Your task to perform on an android device: check storage Image 0: 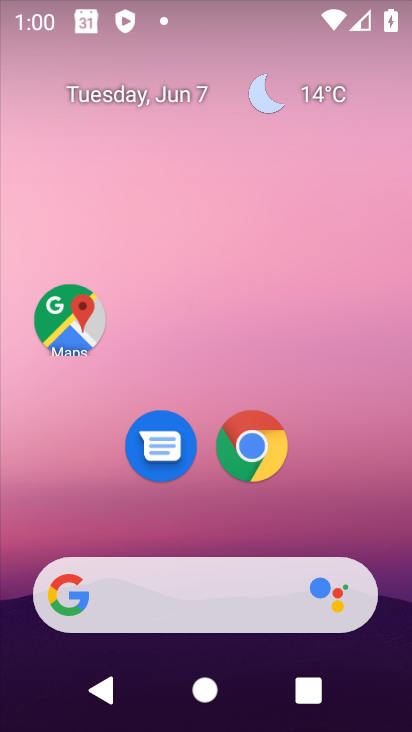
Step 0: drag from (377, 547) to (227, 27)
Your task to perform on an android device: check storage Image 1: 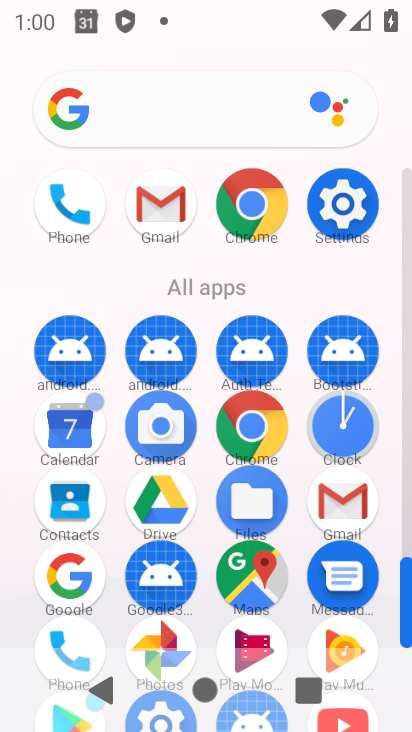
Step 1: drag from (12, 665) to (22, 303)
Your task to perform on an android device: check storage Image 2: 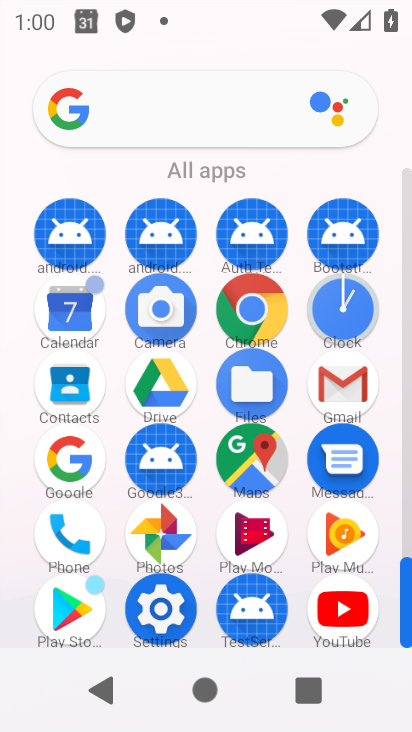
Step 2: click (161, 602)
Your task to perform on an android device: check storage Image 3: 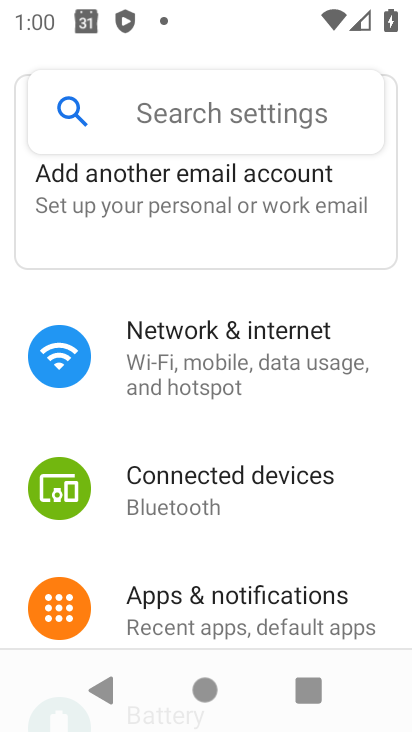
Step 3: drag from (275, 546) to (293, 210)
Your task to perform on an android device: check storage Image 4: 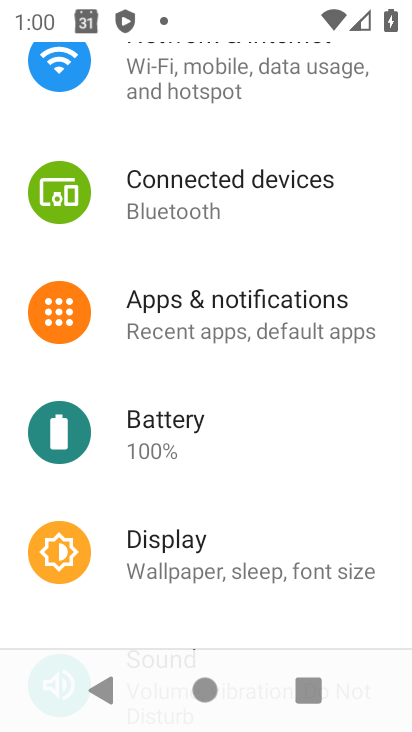
Step 4: drag from (293, 559) to (291, 184)
Your task to perform on an android device: check storage Image 5: 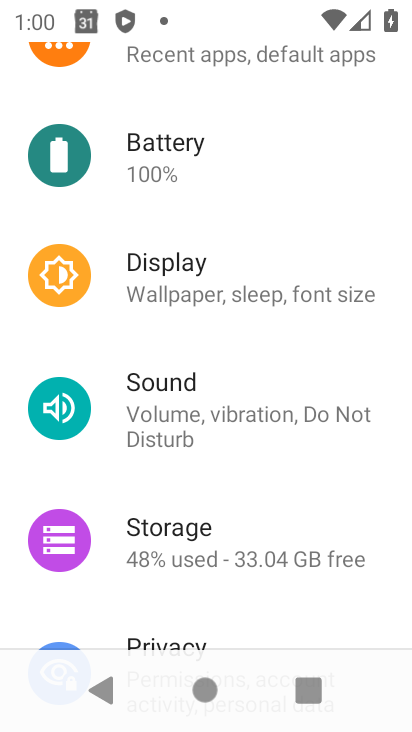
Step 5: click (246, 536)
Your task to perform on an android device: check storage Image 6: 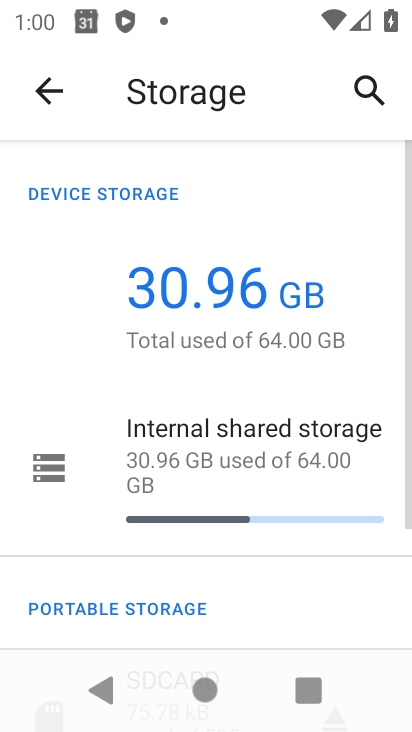
Step 6: task complete